Your task to perform on an android device: Open Amazon Image 0: 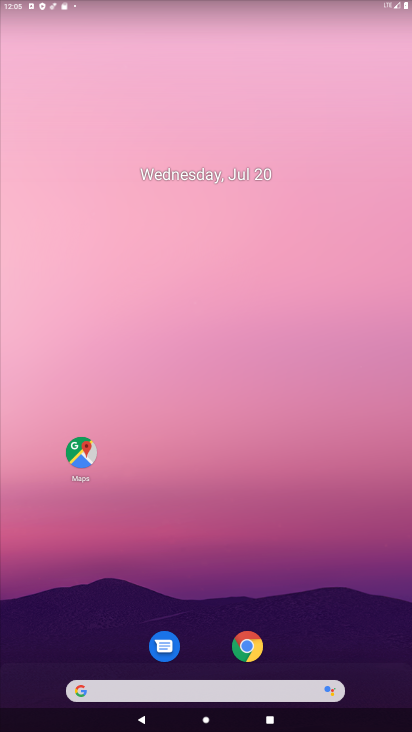
Step 0: click (243, 660)
Your task to perform on an android device: Open Amazon Image 1: 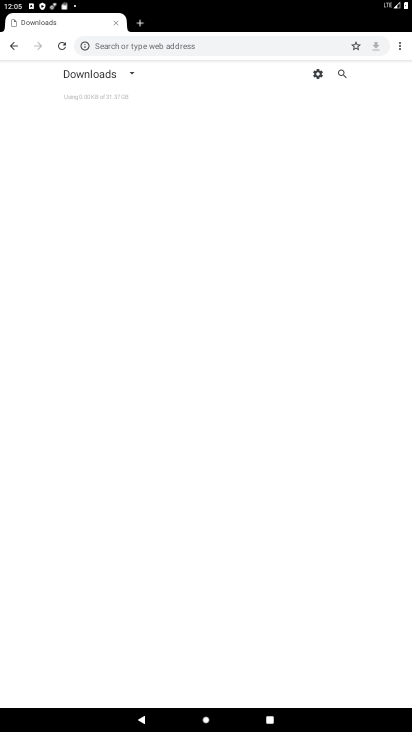
Step 1: click (144, 24)
Your task to perform on an android device: Open Amazon Image 2: 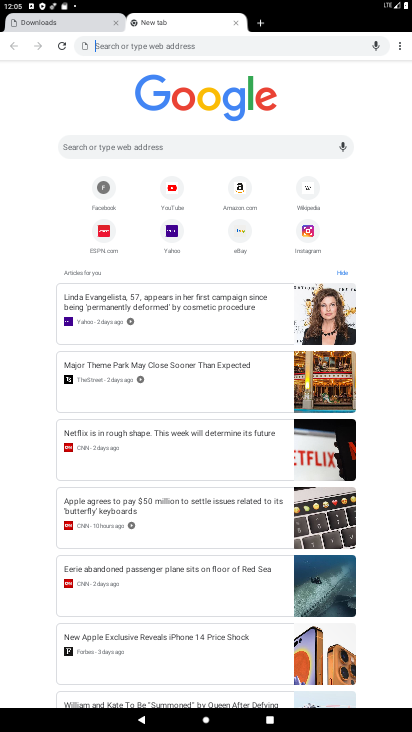
Step 2: click (230, 200)
Your task to perform on an android device: Open Amazon Image 3: 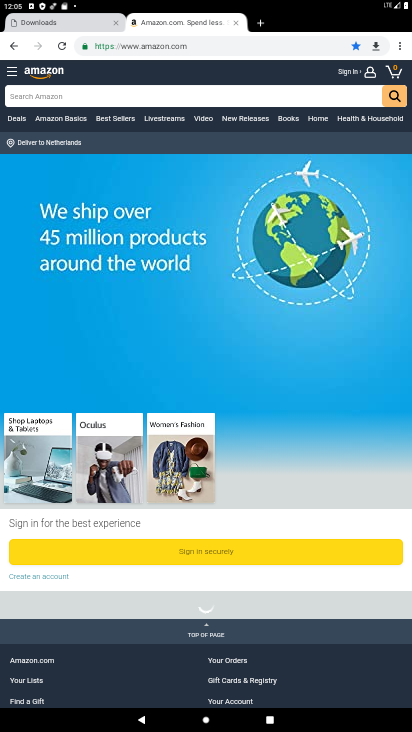
Step 3: task complete